Your task to perform on an android device: Turn on the flashlight Image 0: 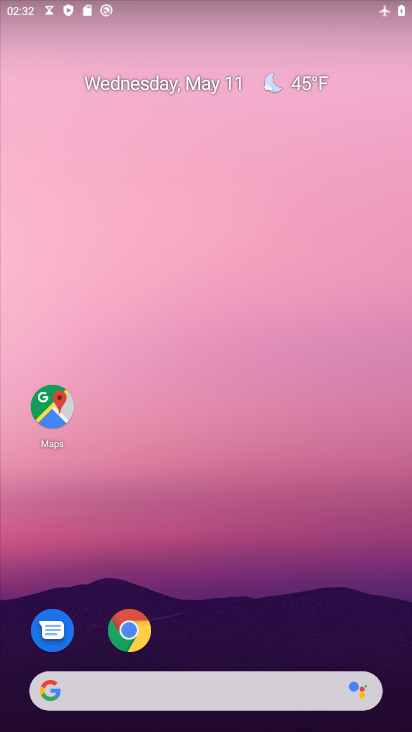
Step 0: drag from (204, 728) to (203, 52)
Your task to perform on an android device: Turn on the flashlight Image 1: 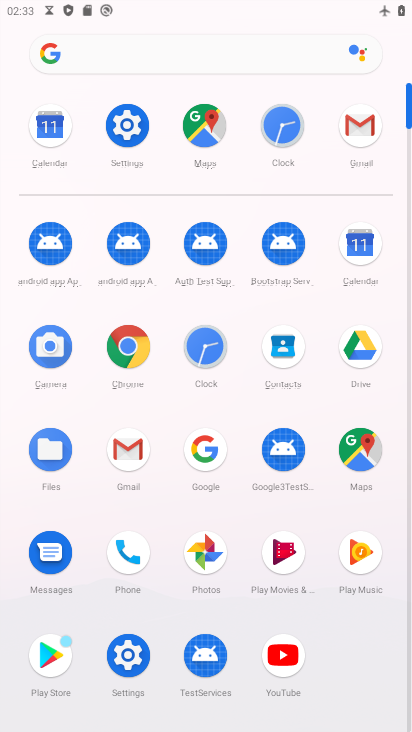
Step 1: click (125, 126)
Your task to perform on an android device: Turn on the flashlight Image 2: 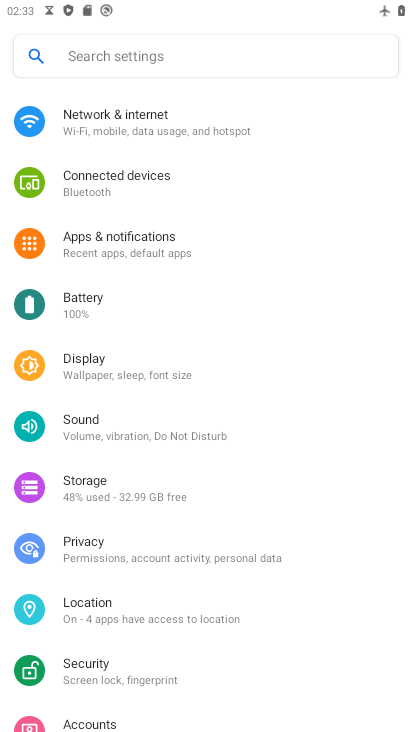
Step 2: task complete